Your task to perform on an android device: Open Amazon Image 0: 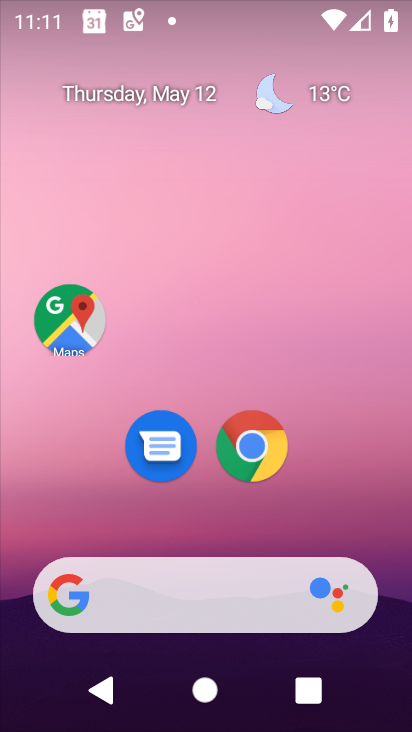
Step 0: drag from (157, 612) to (181, 75)
Your task to perform on an android device: Open Amazon Image 1: 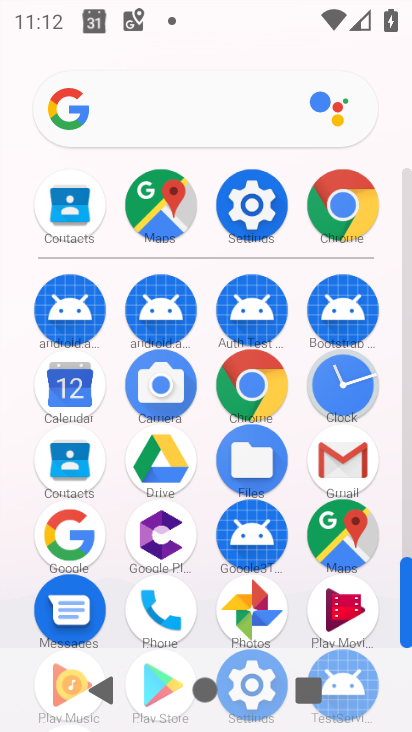
Step 1: click (256, 389)
Your task to perform on an android device: Open Amazon Image 2: 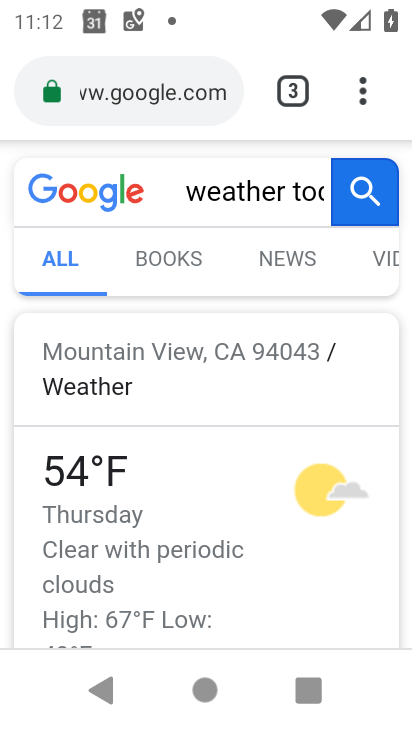
Step 2: click (163, 89)
Your task to perform on an android device: Open Amazon Image 3: 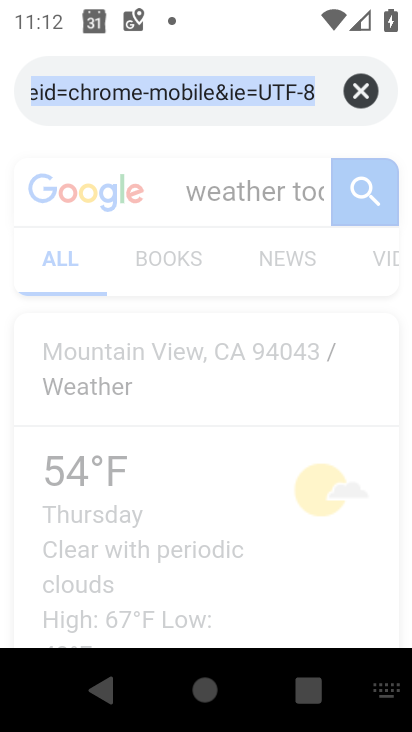
Step 3: click (349, 93)
Your task to perform on an android device: Open Amazon Image 4: 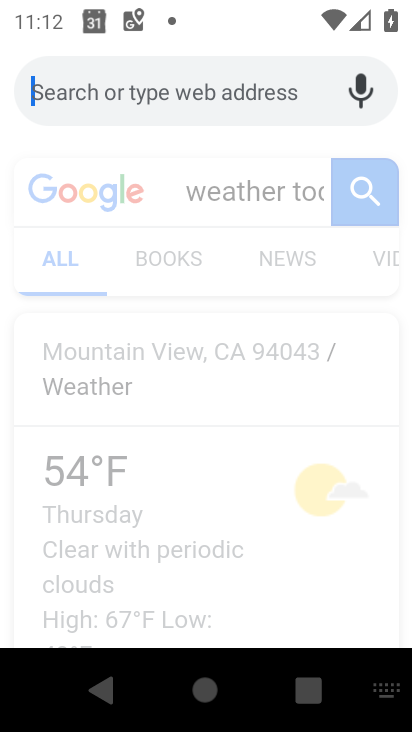
Step 4: type "amazon"
Your task to perform on an android device: Open Amazon Image 5: 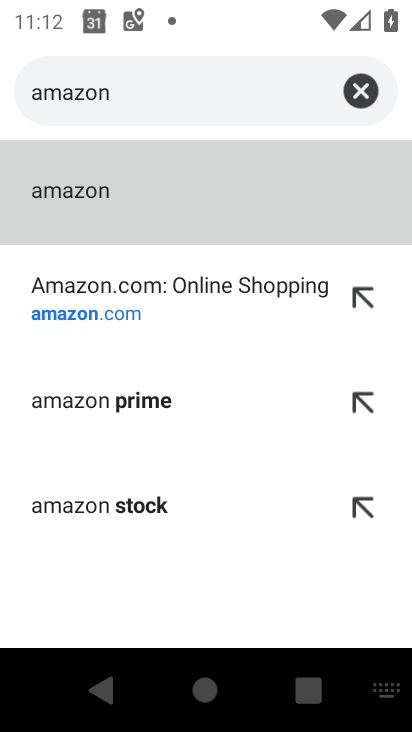
Step 5: click (228, 288)
Your task to perform on an android device: Open Amazon Image 6: 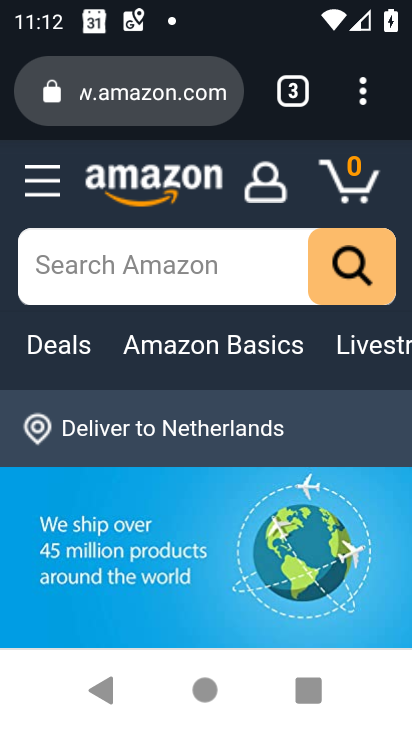
Step 6: task complete